Your task to perform on an android device: Search for sushi restaurants on Maps Image 0: 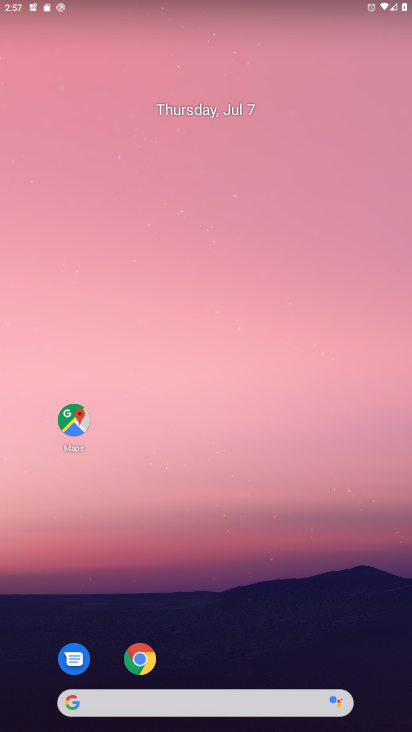
Step 0: drag from (191, 659) to (228, 182)
Your task to perform on an android device: Search for sushi restaurants on Maps Image 1: 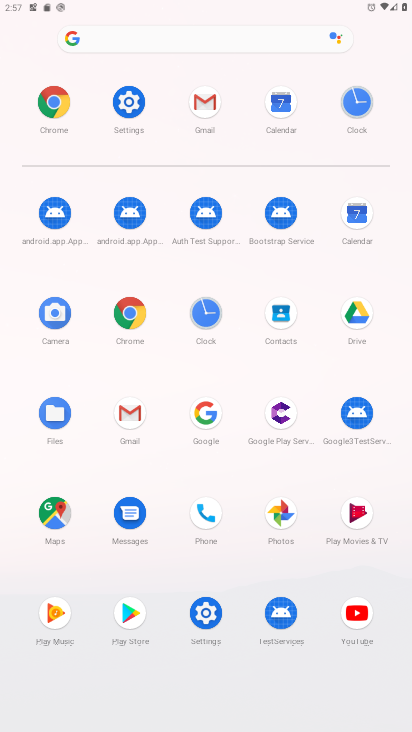
Step 1: click (43, 521)
Your task to perform on an android device: Search for sushi restaurants on Maps Image 2: 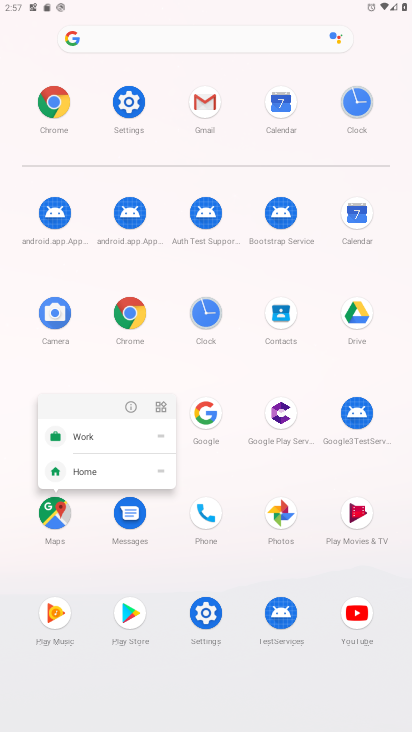
Step 2: click (132, 400)
Your task to perform on an android device: Search for sushi restaurants on Maps Image 3: 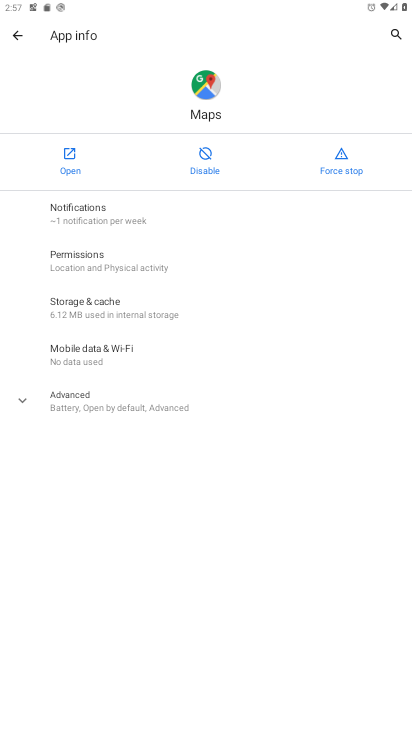
Step 3: click (73, 156)
Your task to perform on an android device: Search for sushi restaurants on Maps Image 4: 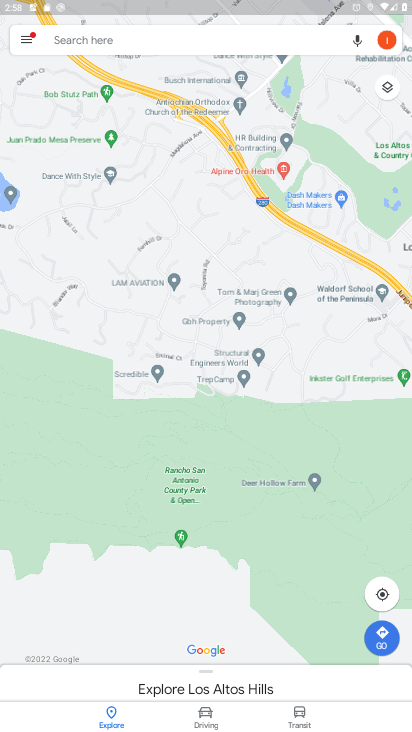
Step 4: click (218, 45)
Your task to perform on an android device: Search for sushi restaurants on Maps Image 5: 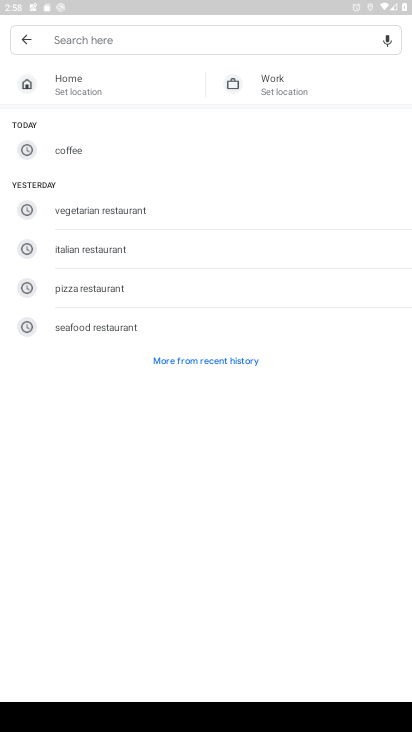
Step 5: type "sushi restaurants"
Your task to perform on an android device: Search for sushi restaurants on Maps Image 6: 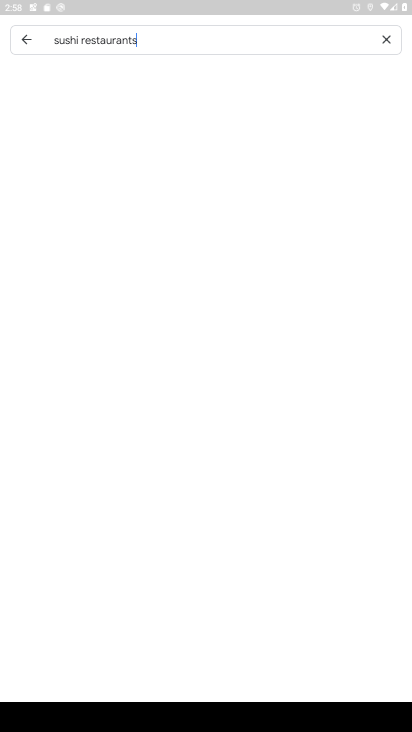
Step 6: type ""
Your task to perform on an android device: Search for sushi restaurants on Maps Image 7: 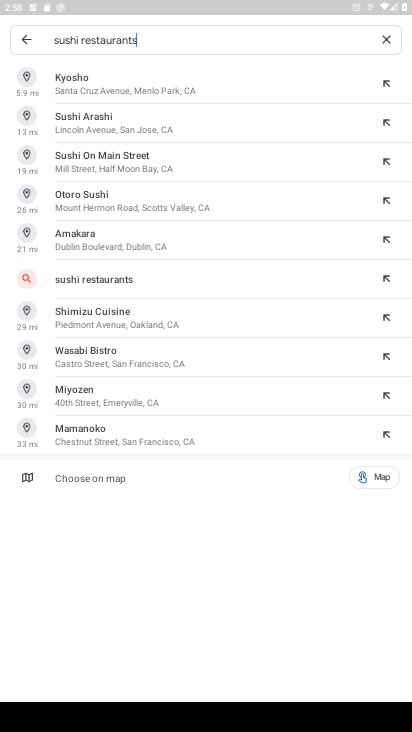
Step 7: click (119, 272)
Your task to perform on an android device: Search for sushi restaurants on Maps Image 8: 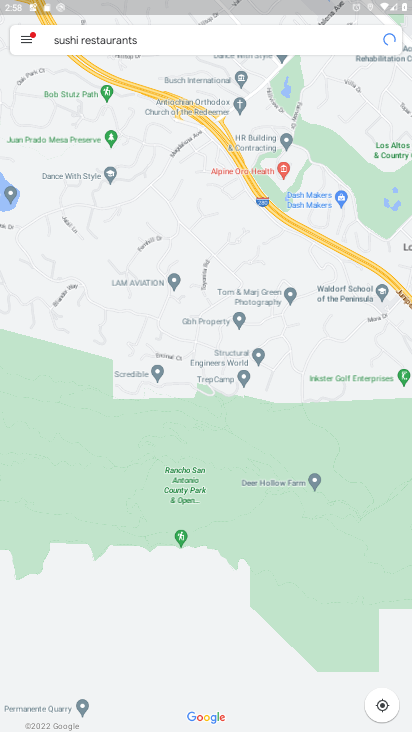
Step 8: task complete